Your task to perform on an android device: turn vacation reply on in the gmail app Image 0: 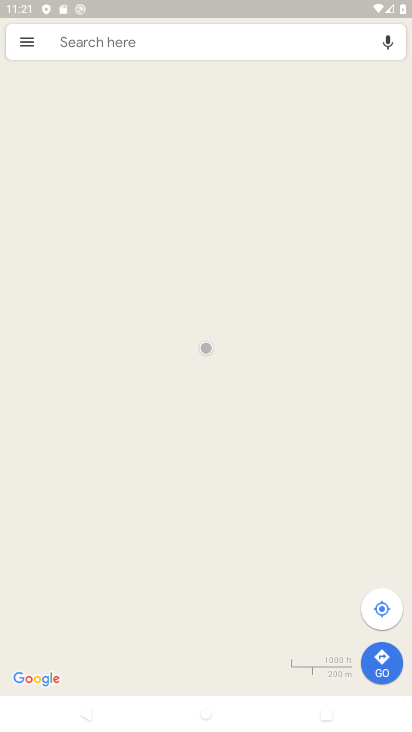
Step 0: press home button
Your task to perform on an android device: turn vacation reply on in the gmail app Image 1: 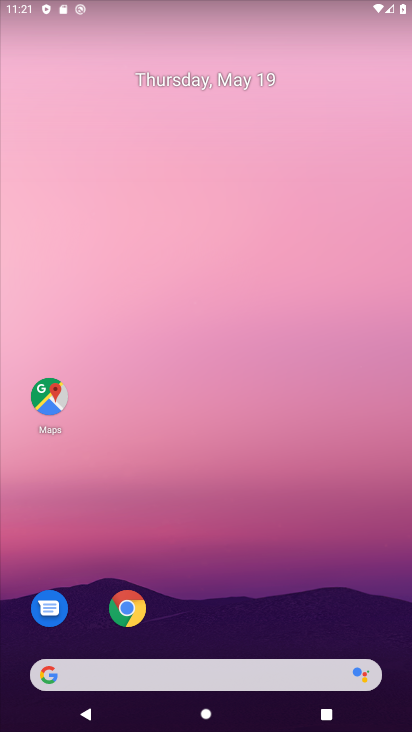
Step 1: drag from (349, 589) to (366, 201)
Your task to perform on an android device: turn vacation reply on in the gmail app Image 2: 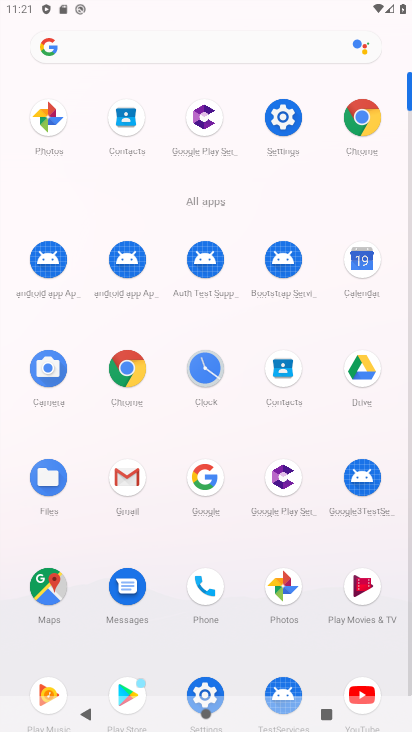
Step 2: click (124, 476)
Your task to perform on an android device: turn vacation reply on in the gmail app Image 3: 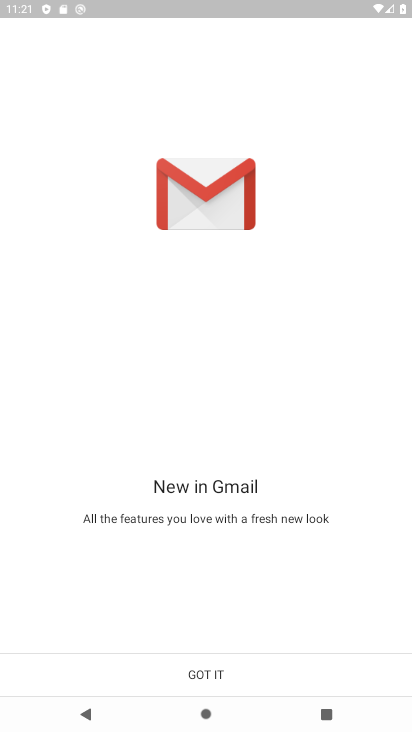
Step 3: click (237, 673)
Your task to perform on an android device: turn vacation reply on in the gmail app Image 4: 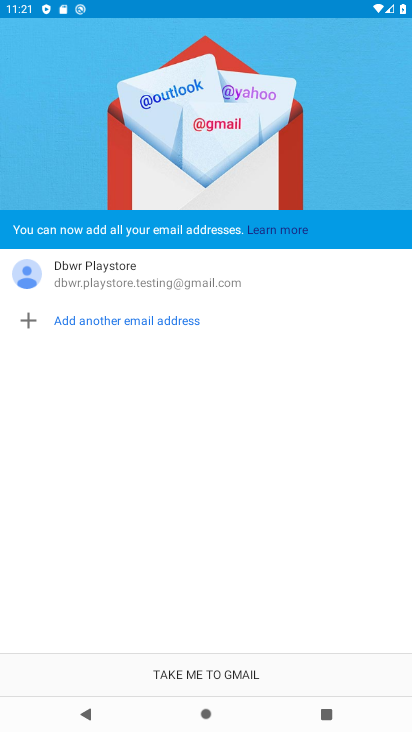
Step 4: click (237, 673)
Your task to perform on an android device: turn vacation reply on in the gmail app Image 5: 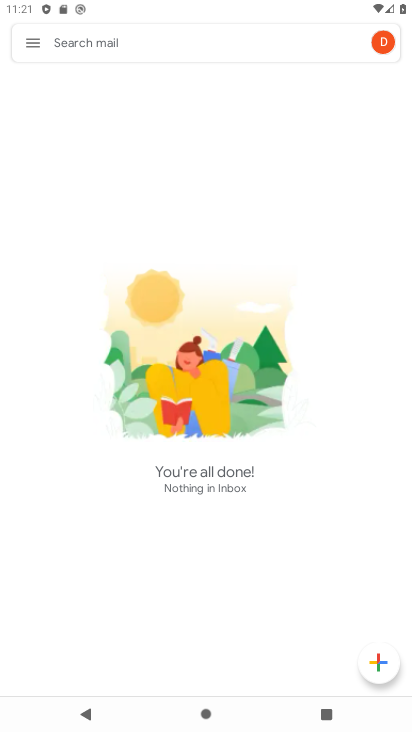
Step 5: click (25, 37)
Your task to perform on an android device: turn vacation reply on in the gmail app Image 6: 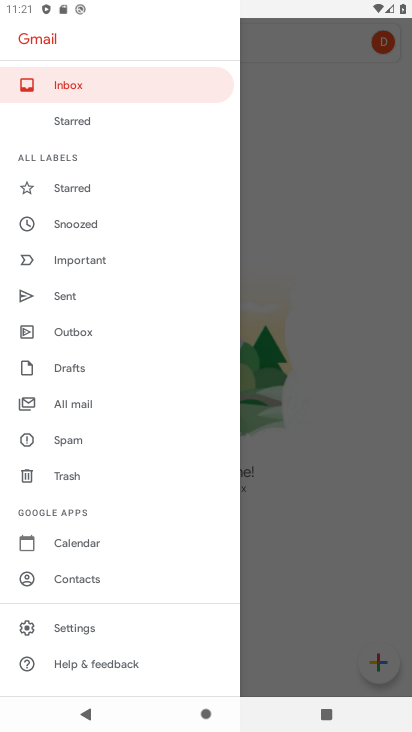
Step 6: drag from (184, 528) to (187, 406)
Your task to perform on an android device: turn vacation reply on in the gmail app Image 7: 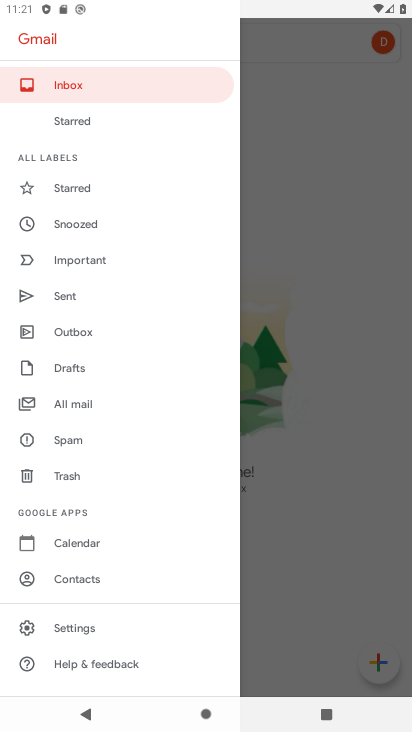
Step 7: drag from (184, 265) to (177, 427)
Your task to perform on an android device: turn vacation reply on in the gmail app Image 8: 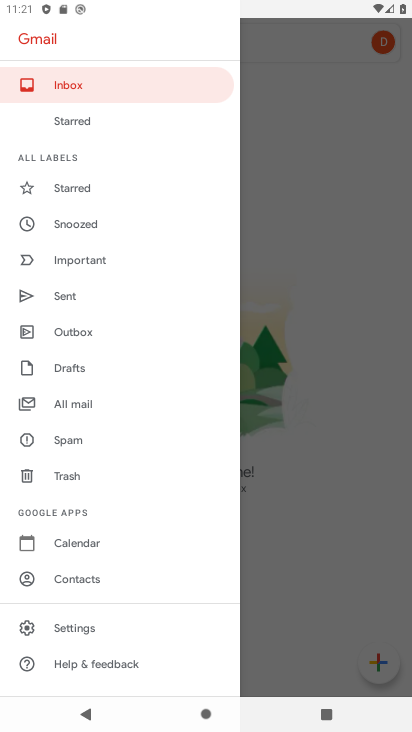
Step 8: click (136, 628)
Your task to perform on an android device: turn vacation reply on in the gmail app Image 9: 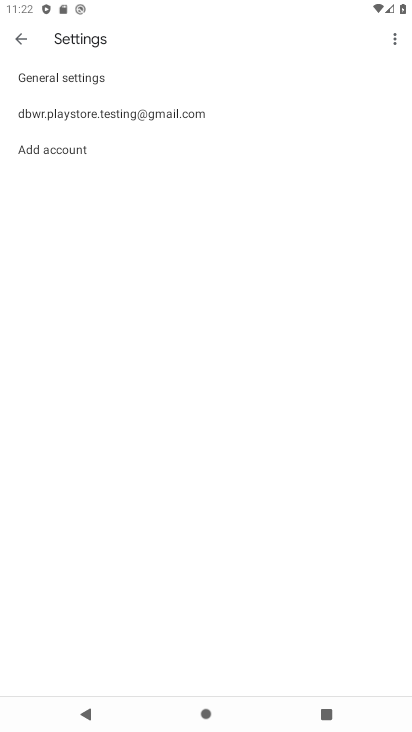
Step 9: click (207, 119)
Your task to perform on an android device: turn vacation reply on in the gmail app Image 10: 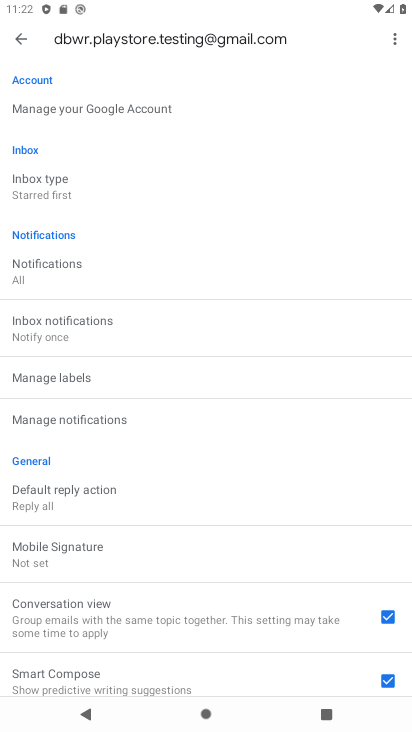
Step 10: drag from (287, 473) to (289, 379)
Your task to perform on an android device: turn vacation reply on in the gmail app Image 11: 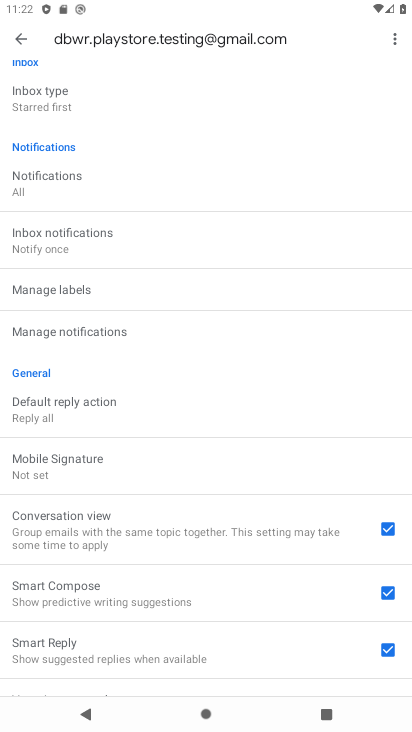
Step 11: drag from (297, 542) to (298, 462)
Your task to perform on an android device: turn vacation reply on in the gmail app Image 12: 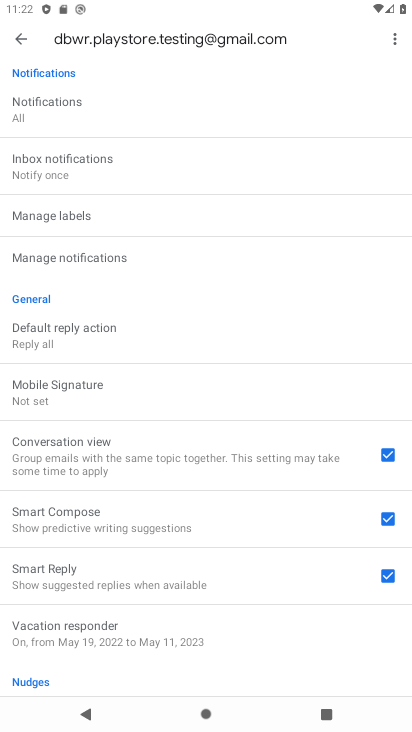
Step 12: drag from (298, 593) to (292, 478)
Your task to perform on an android device: turn vacation reply on in the gmail app Image 13: 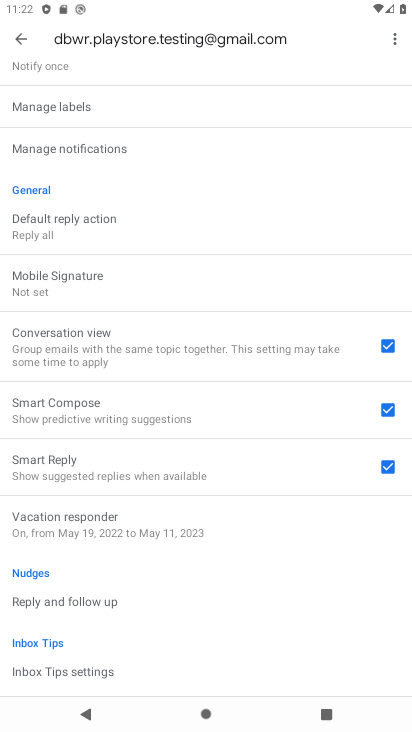
Step 13: click (176, 534)
Your task to perform on an android device: turn vacation reply on in the gmail app Image 14: 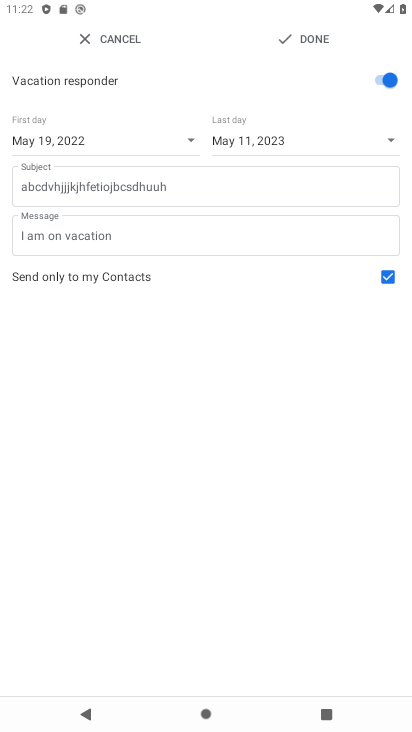
Step 14: task complete